Your task to perform on an android device: Open location settings Image 0: 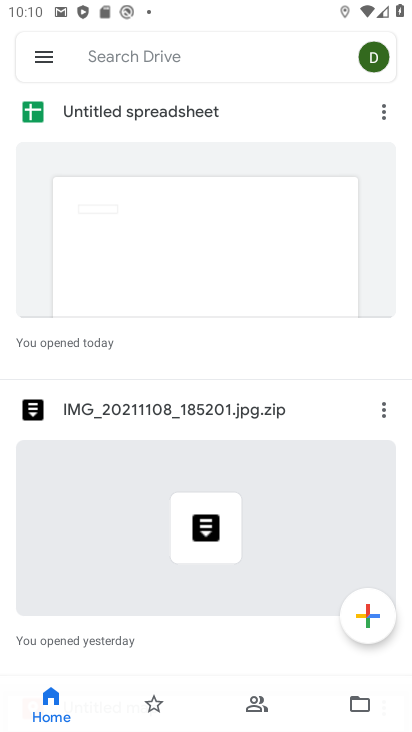
Step 0: press home button
Your task to perform on an android device: Open location settings Image 1: 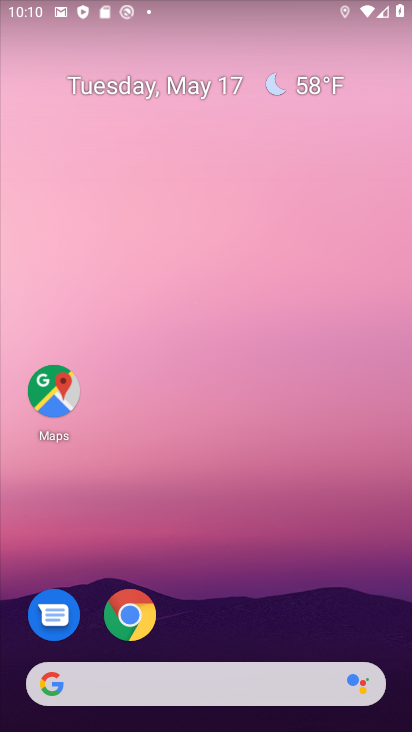
Step 1: drag from (201, 639) to (213, 172)
Your task to perform on an android device: Open location settings Image 2: 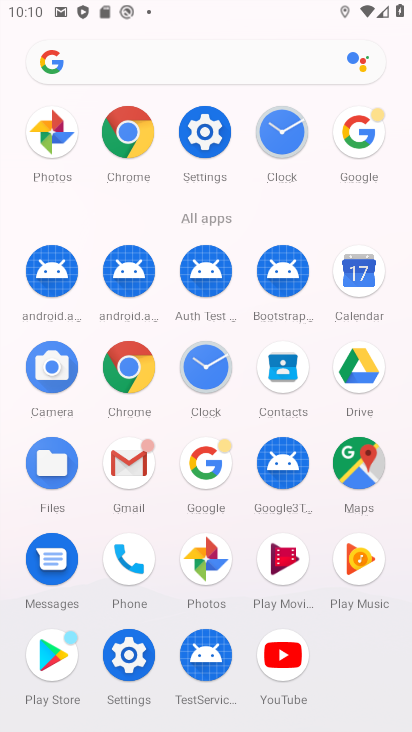
Step 2: click (214, 158)
Your task to perform on an android device: Open location settings Image 3: 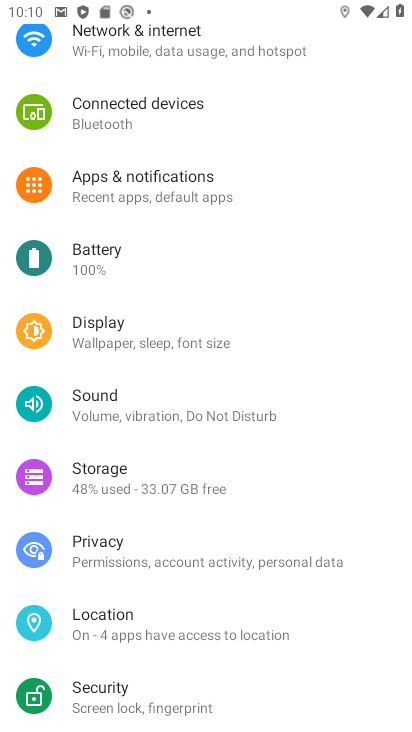
Step 3: click (174, 605)
Your task to perform on an android device: Open location settings Image 4: 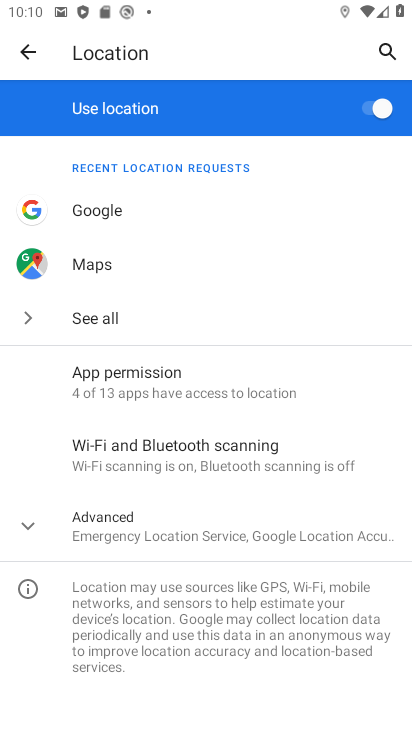
Step 4: task complete